Your task to perform on an android device: install app "Roku - Official Remote Control" Image 0: 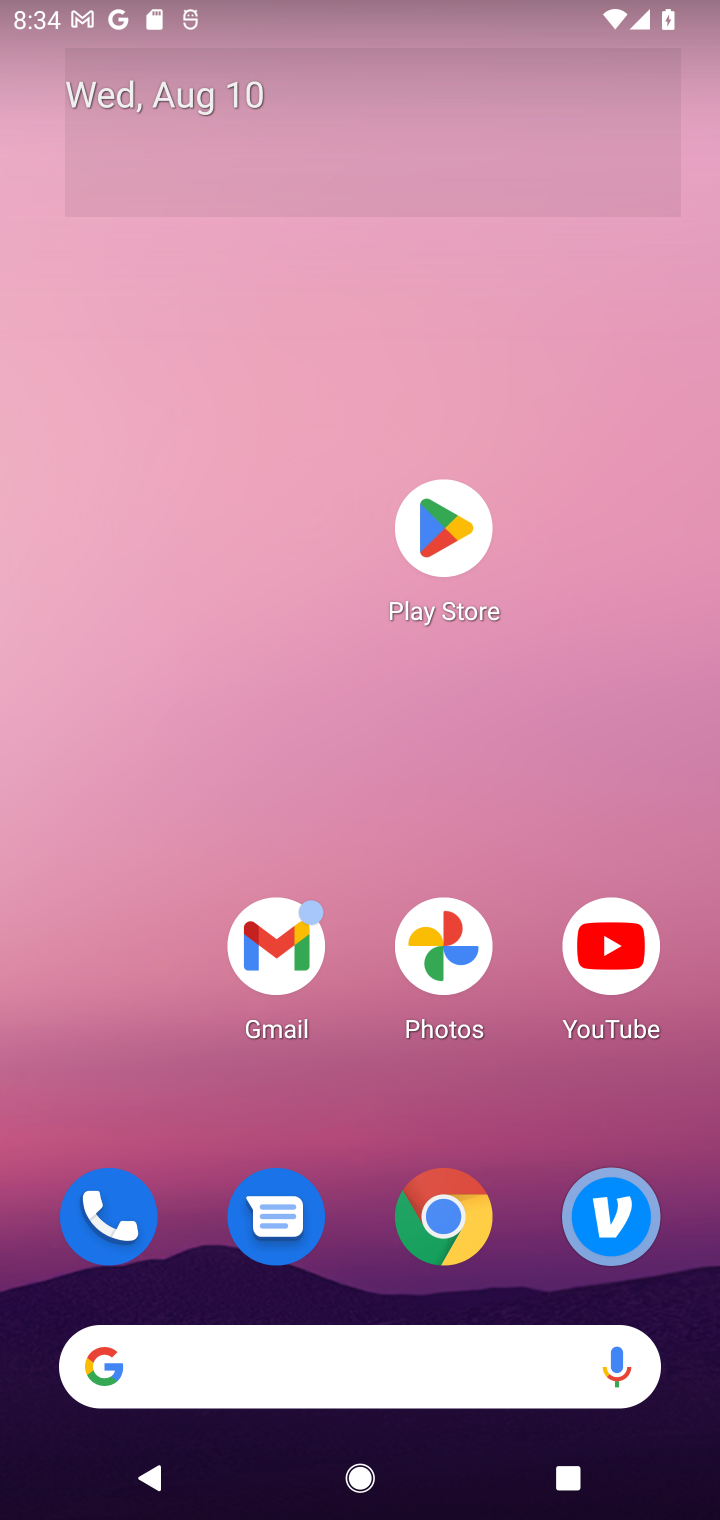
Step 0: press home button
Your task to perform on an android device: install app "Roku - Official Remote Control" Image 1: 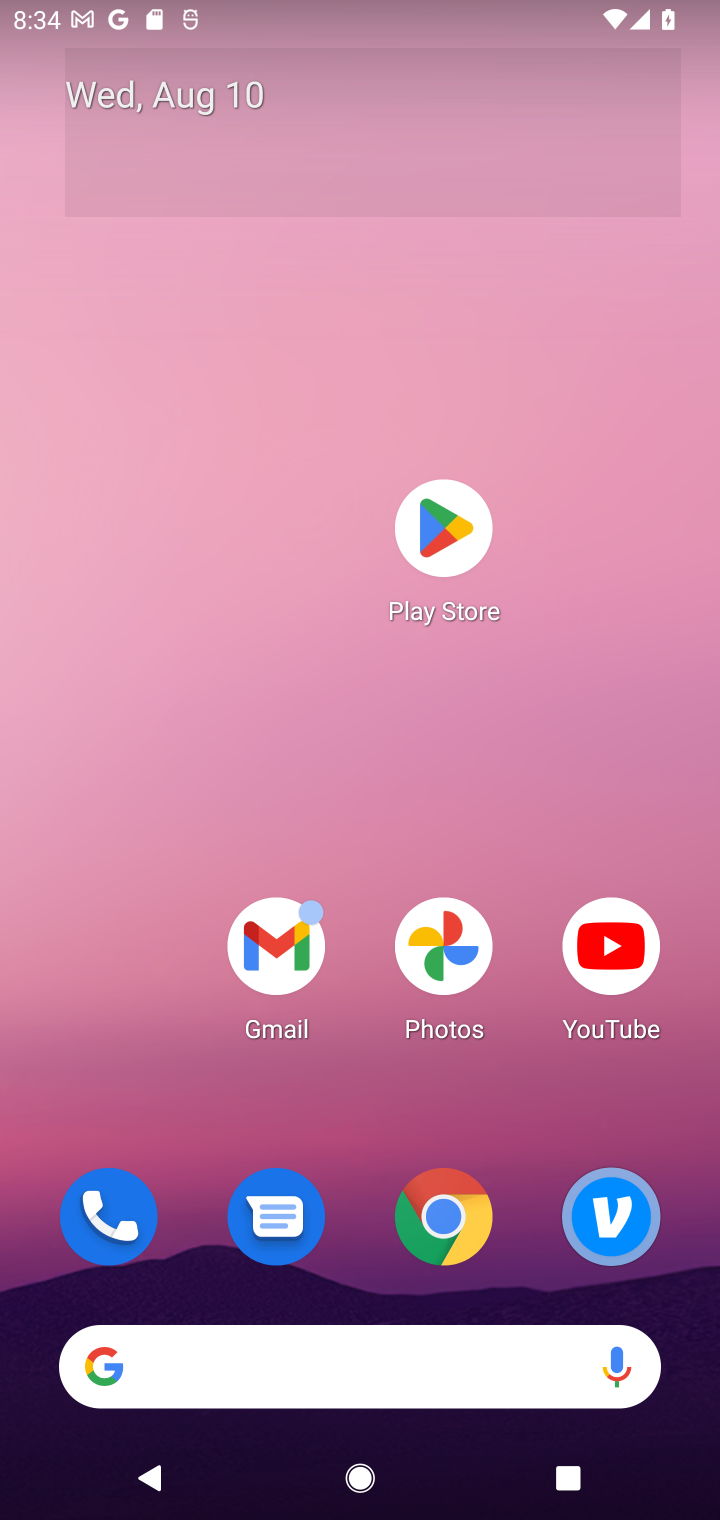
Step 1: click (435, 531)
Your task to perform on an android device: install app "Roku - Official Remote Control" Image 2: 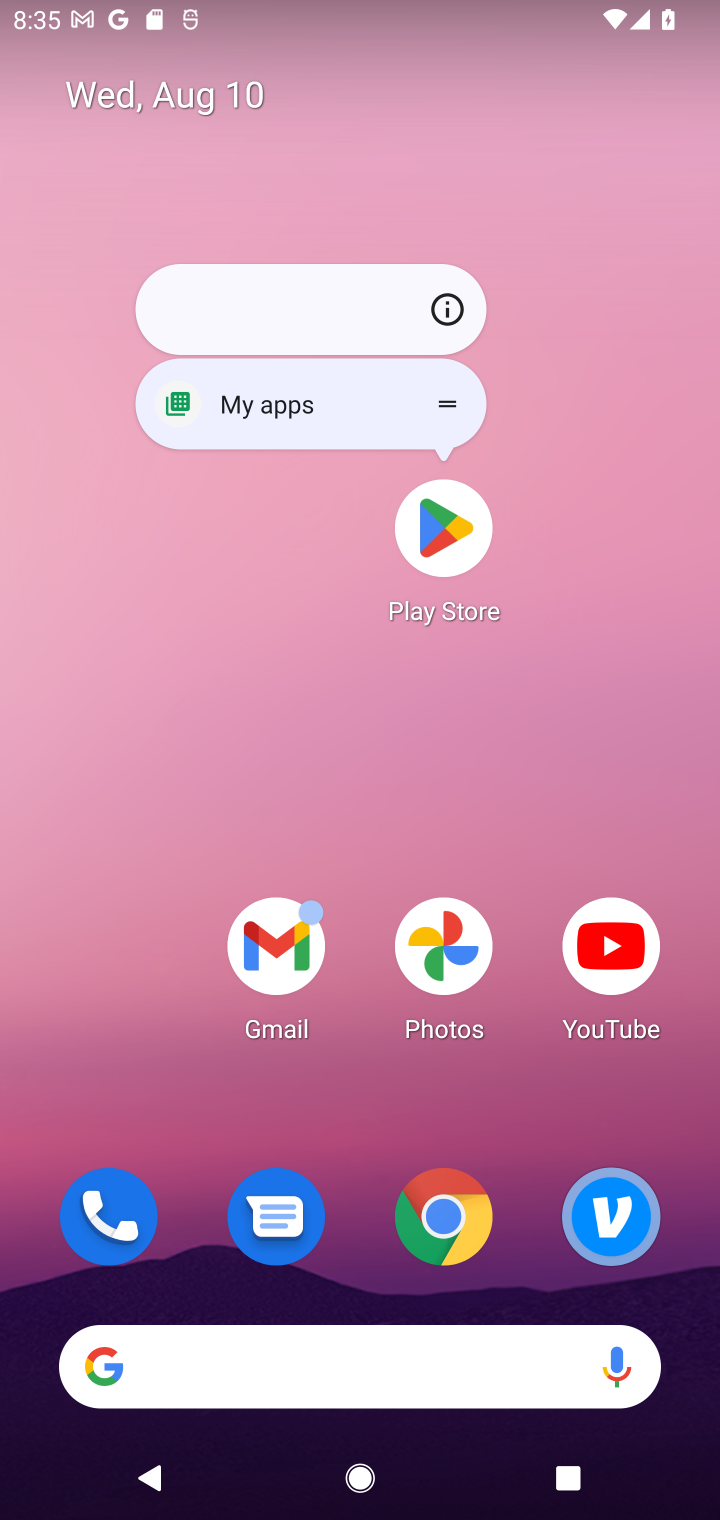
Step 2: click (447, 536)
Your task to perform on an android device: install app "Roku - Official Remote Control" Image 3: 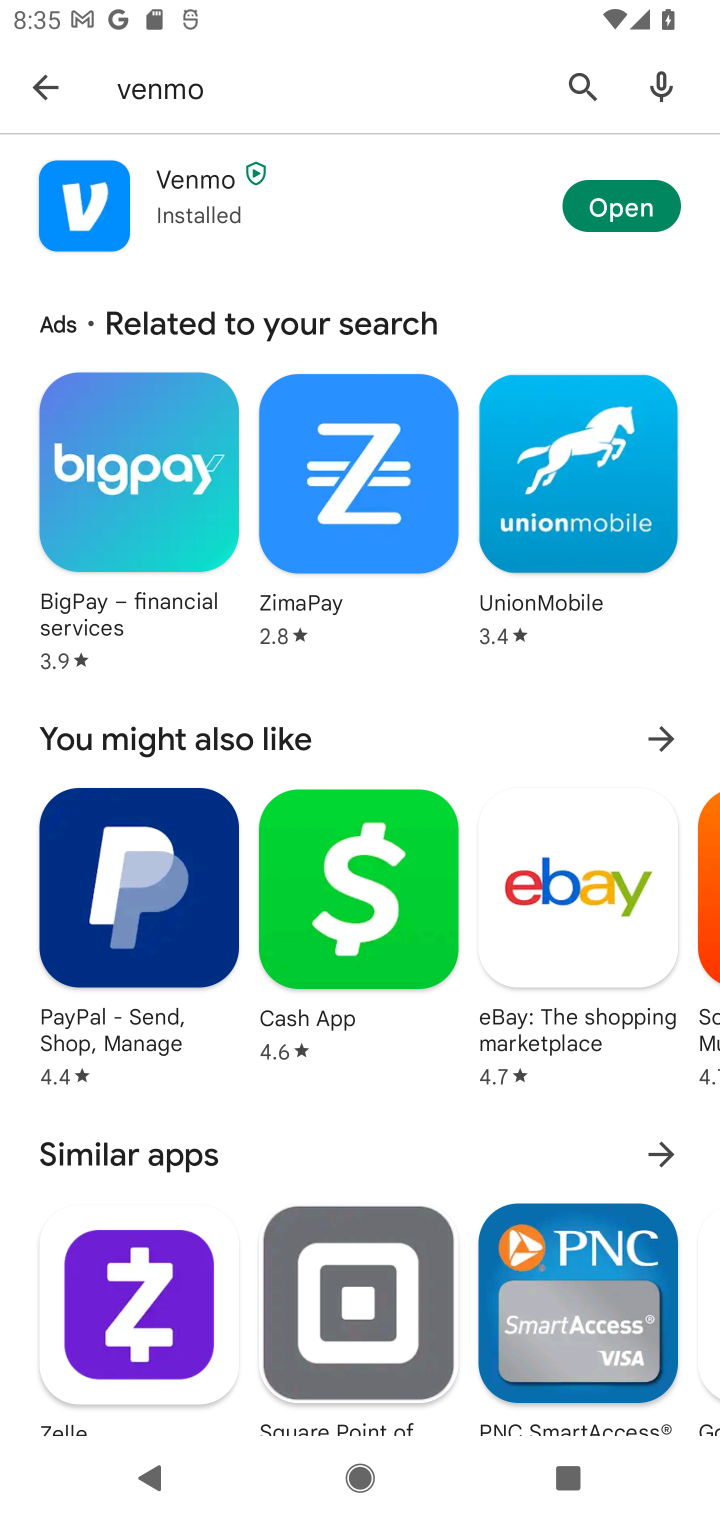
Step 3: click (580, 84)
Your task to perform on an android device: install app "Roku - Official Remote Control" Image 4: 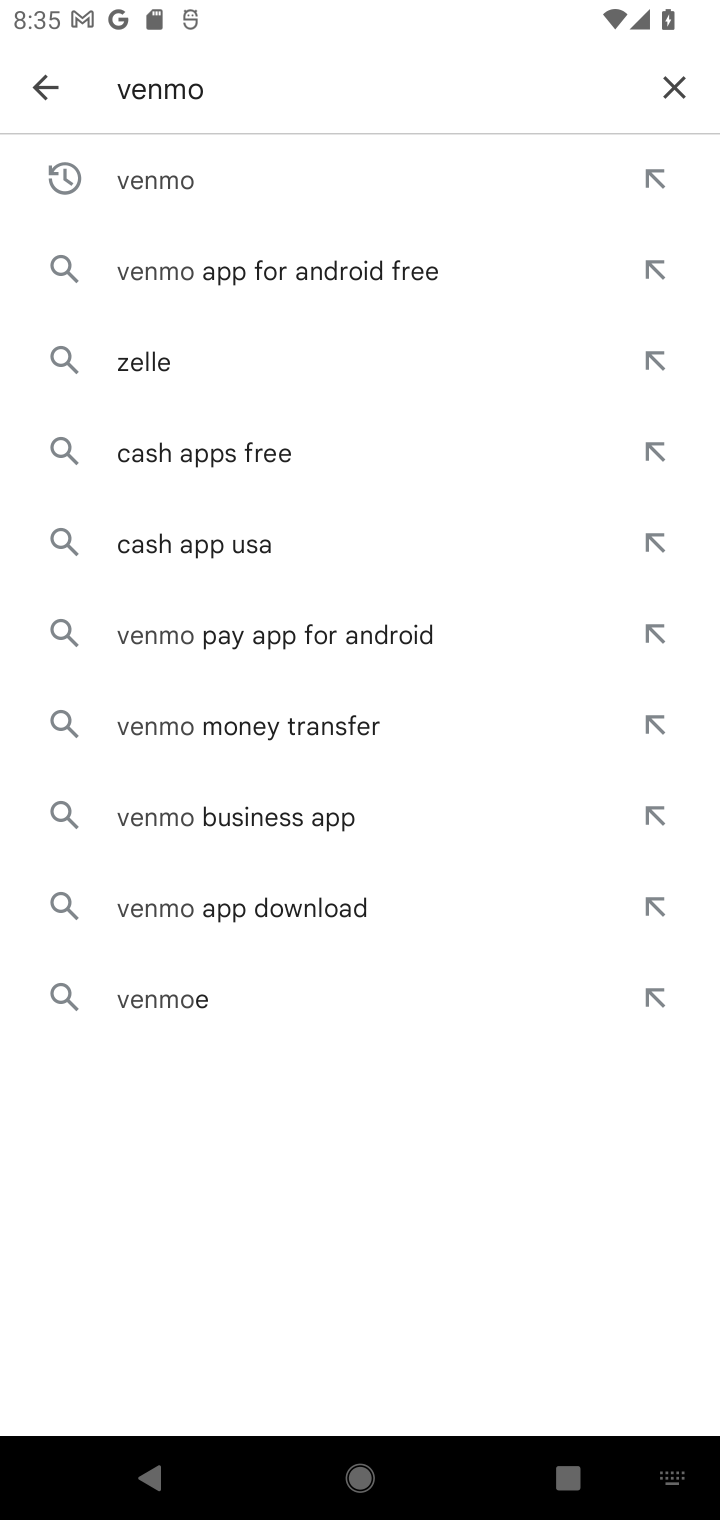
Step 4: click (683, 83)
Your task to perform on an android device: install app "Roku - Official Remote Control" Image 5: 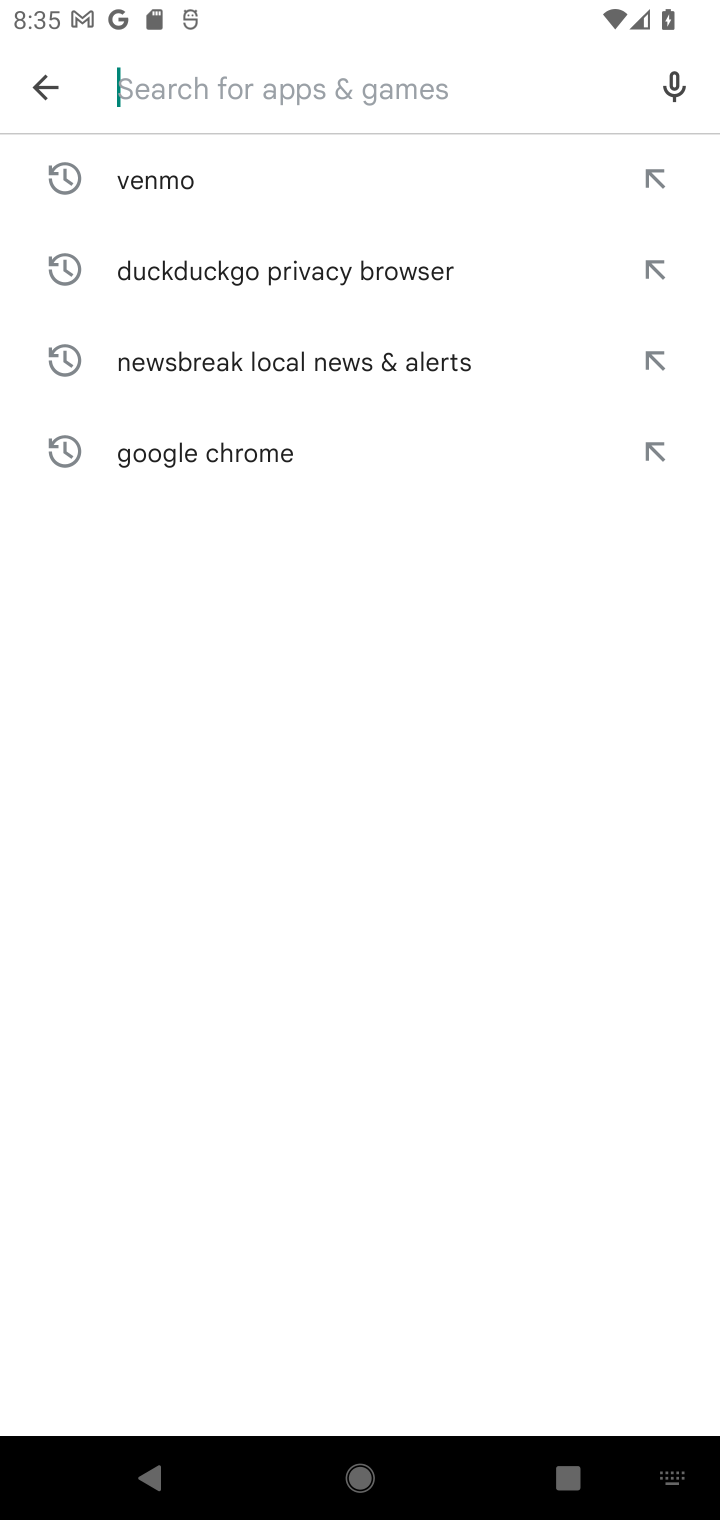
Step 5: type "Roku - Official Remote Control"
Your task to perform on an android device: install app "Roku - Official Remote Control" Image 6: 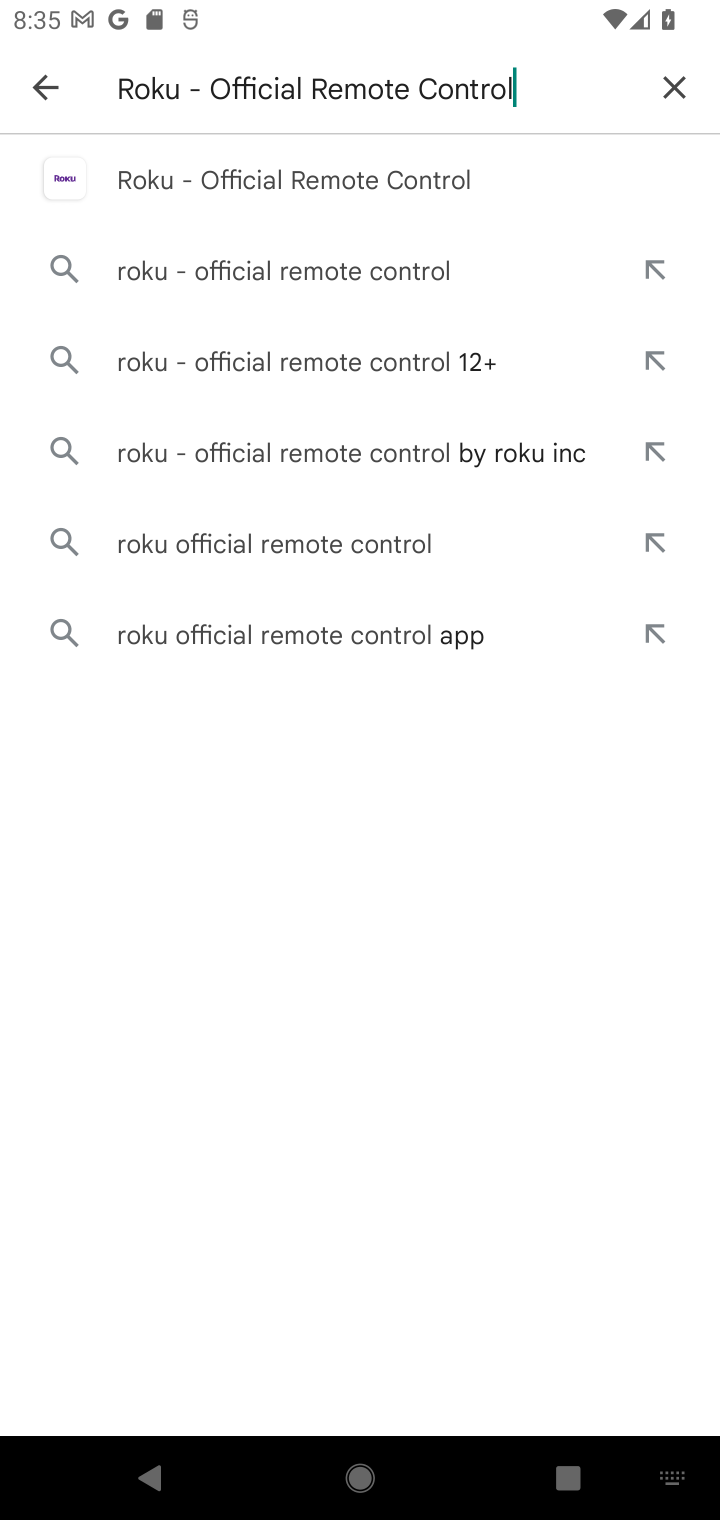
Step 6: click (396, 184)
Your task to perform on an android device: install app "Roku - Official Remote Control" Image 7: 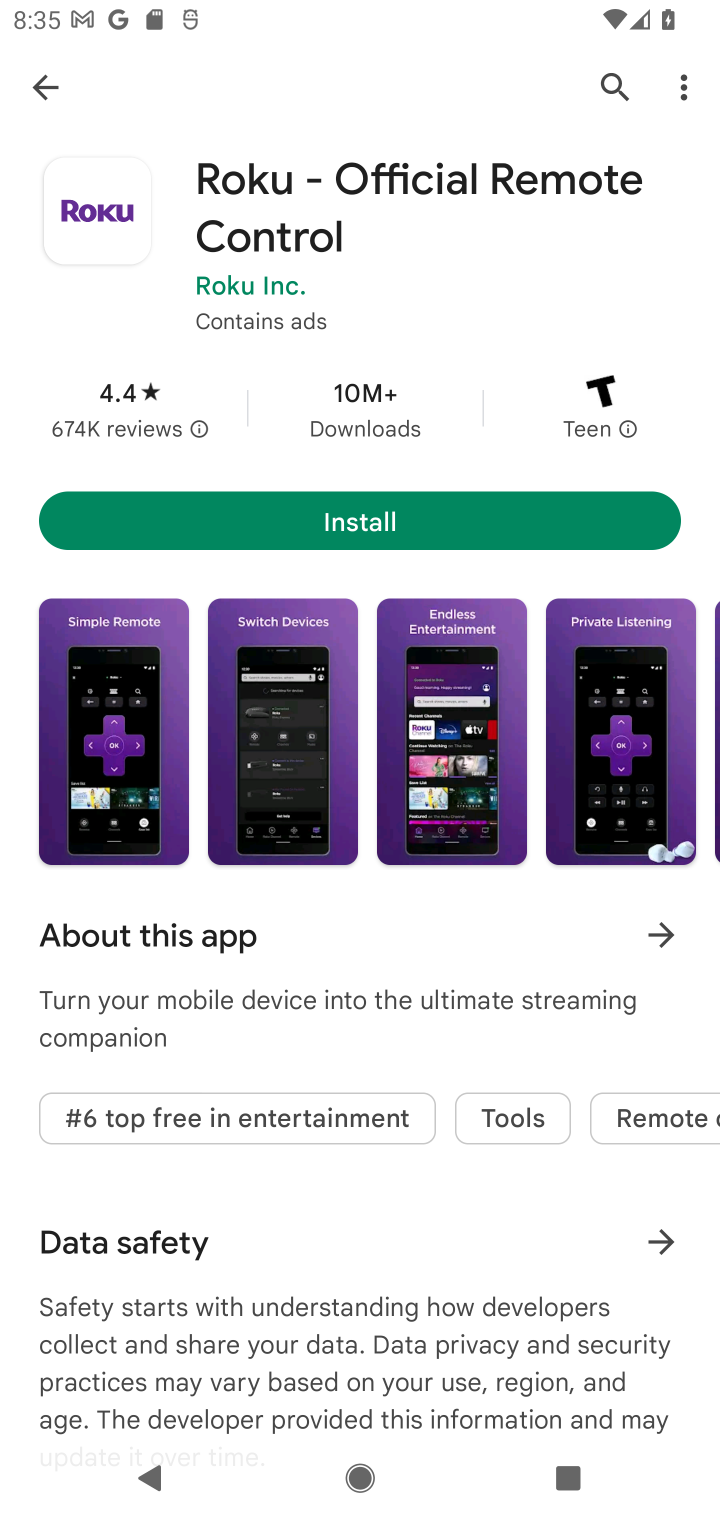
Step 7: click (369, 519)
Your task to perform on an android device: install app "Roku - Official Remote Control" Image 8: 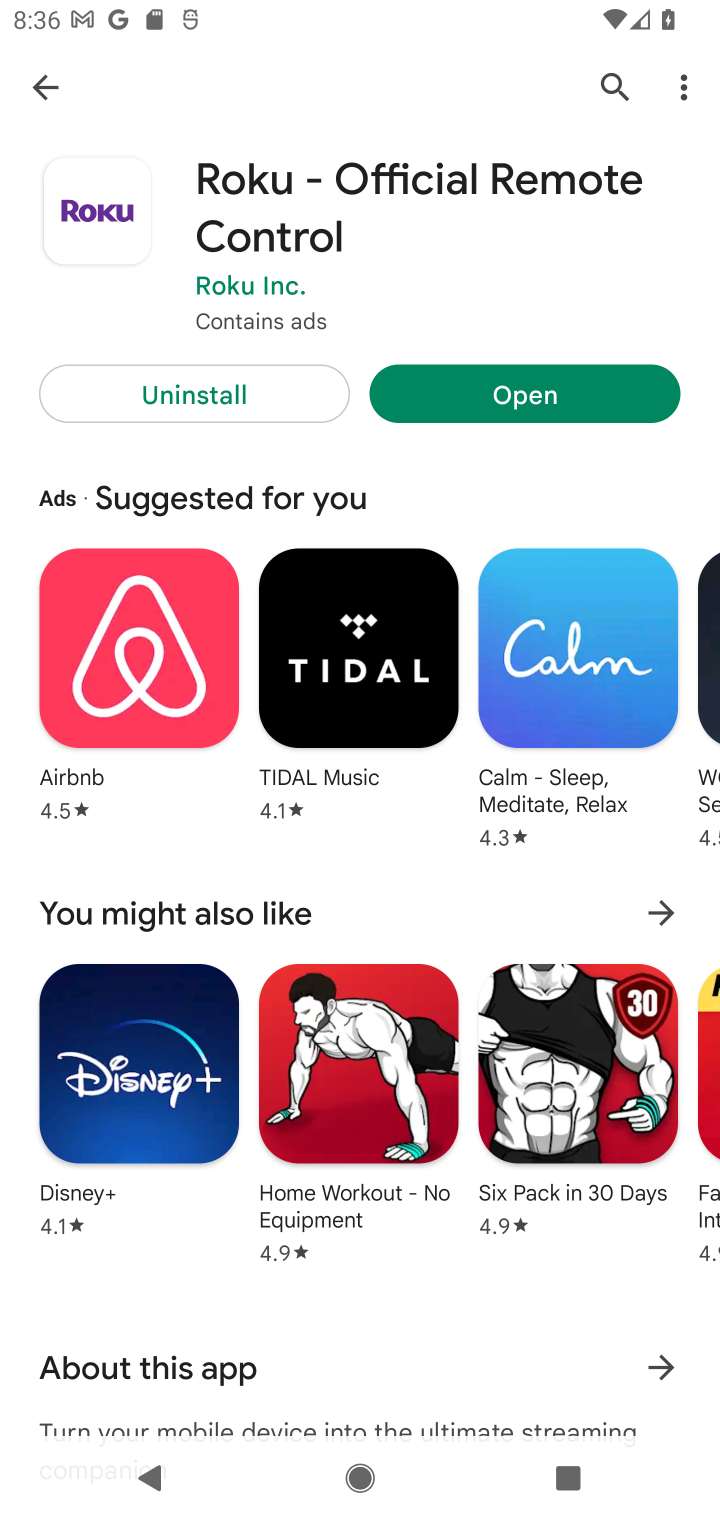
Step 8: task complete